Your task to perform on an android device: star an email in the gmail app Image 0: 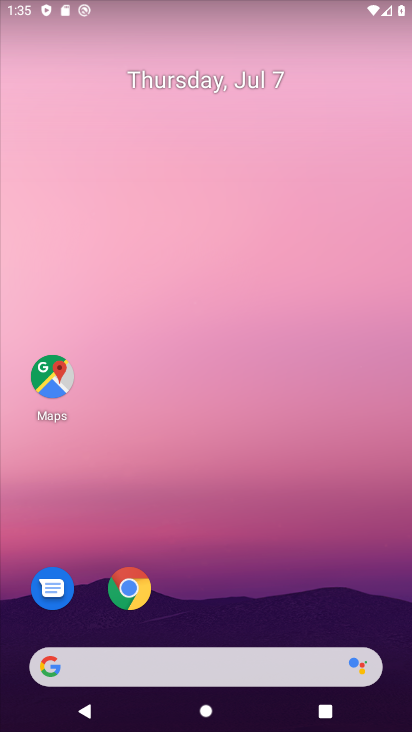
Step 0: drag from (193, 570) to (235, 181)
Your task to perform on an android device: star an email in the gmail app Image 1: 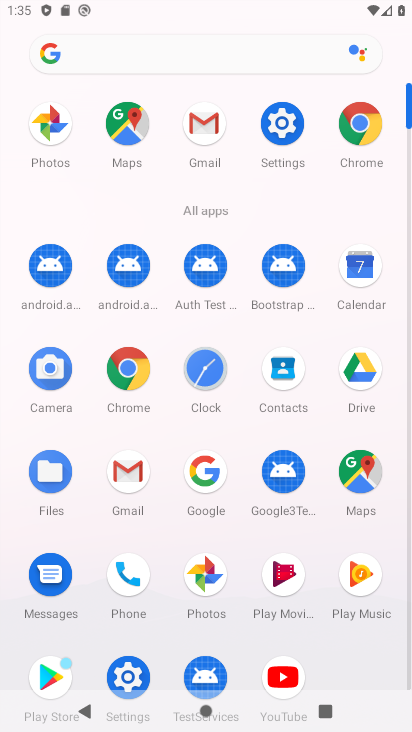
Step 1: click (141, 476)
Your task to perform on an android device: star an email in the gmail app Image 2: 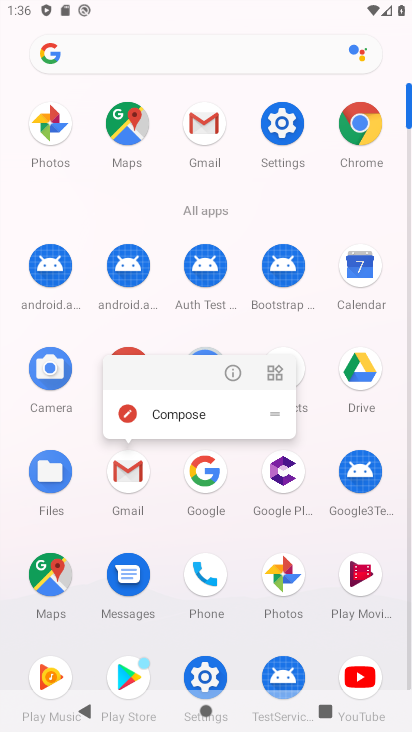
Step 2: click (134, 490)
Your task to perform on an android device: star an email in the gmail app Image 3: 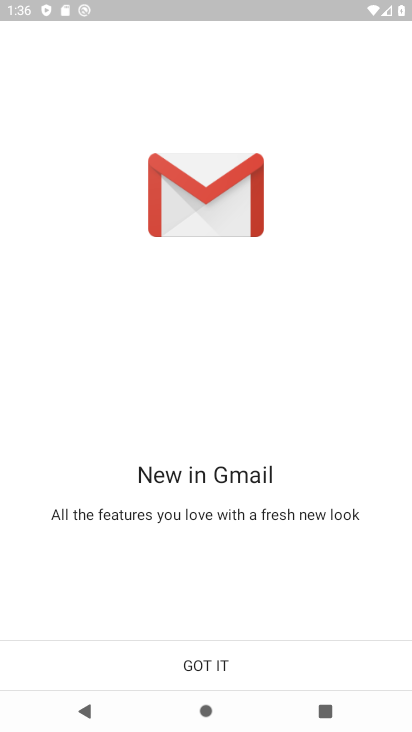
Step 3: click (181, 659)
Your task to perform on an android device: star an email in the gmail app Image 4: 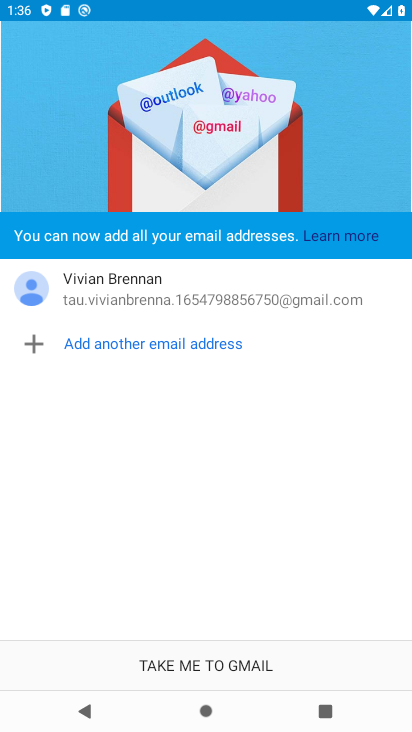
Step 4: click (185, 660)
Your task to perform on an android device: star an email in the gmail app Image 5: 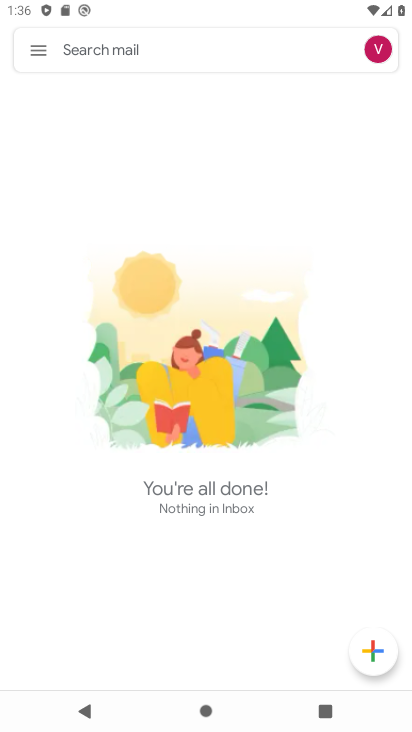
Step 5: task complete